Your task to perform on an android device: change notifications settings Image 0: 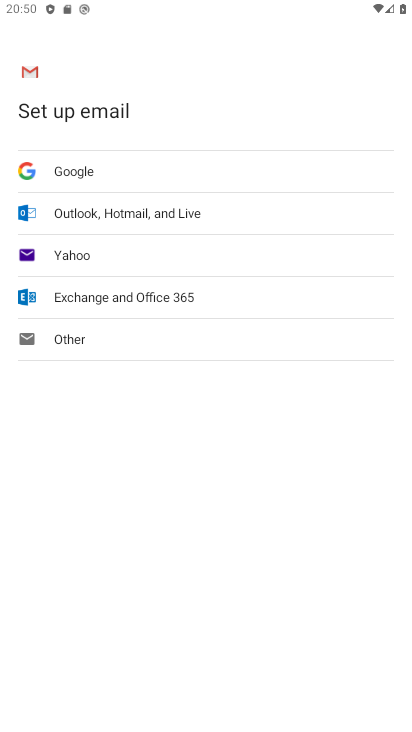
Step 0: press back button
Your task to perform on an android device: change notifications settings Image 1: 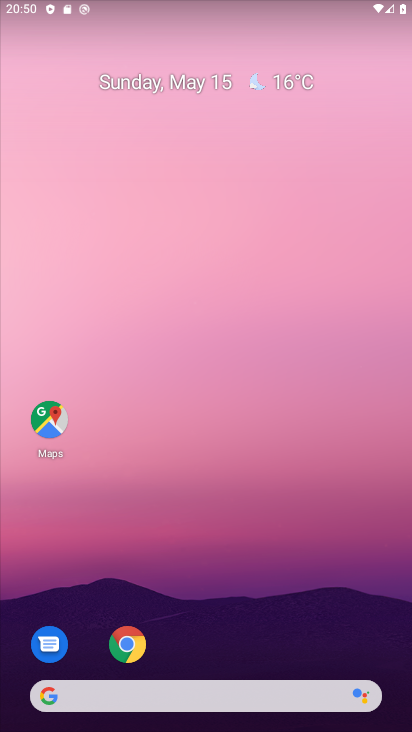
Step 1: drag from (207, 622) to (305, 63)
Your task to perform on an android device: change notifications settings Image 2: 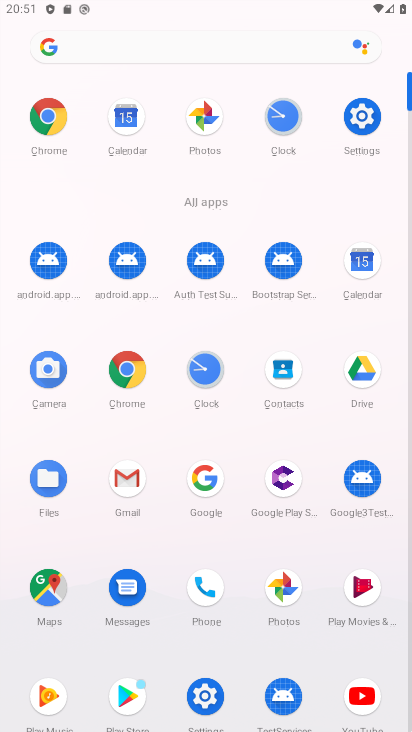
Step 2: click (355, 114)
Your task to perform on an android device: change notifications settings Image 3: 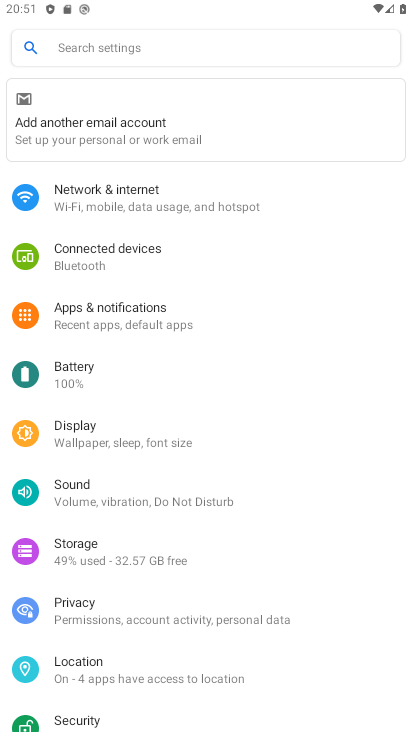
Step 3: click (127, 315)
Your task to perform on an android device: change notifications settings Image 4: 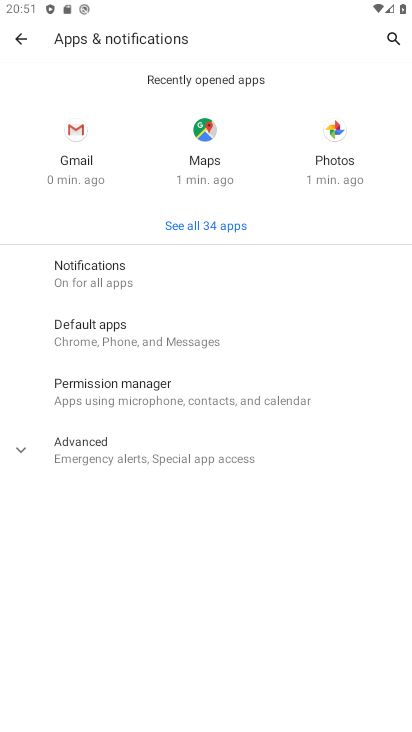
Step 4: click (197, 284)
Your task to perform on an android device: change notifications settings Image 5: 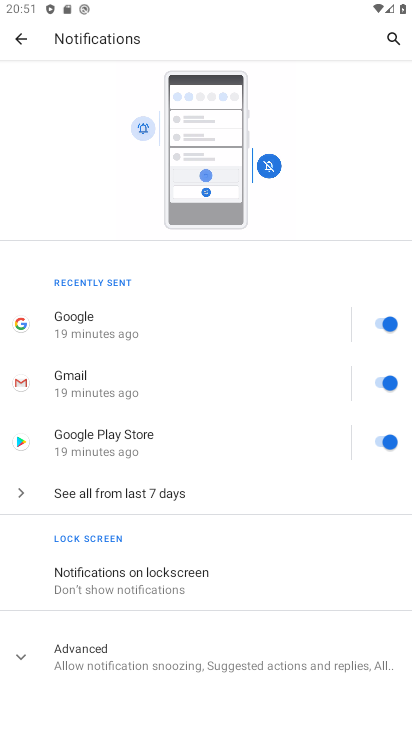
Step 5: drag from (232, 627) to (297, 370)
Your task to perform on an android device: change notifications settings Image 6: 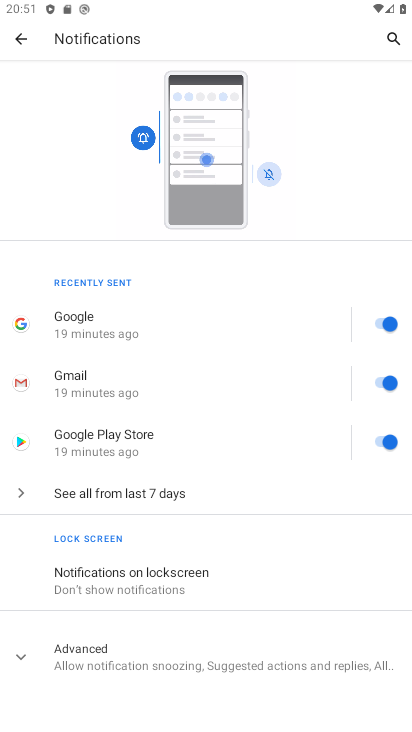
Step 6: click (153, 643)
Your task to perform on an android device: change notifications settings Image 7: 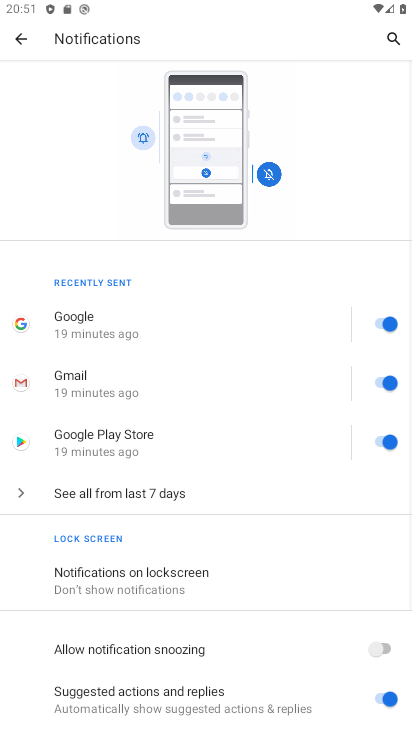
Step 7: drag from (224, 587) to (265, 305)
Your task to perform on an android device: change notifications settings Image 8: 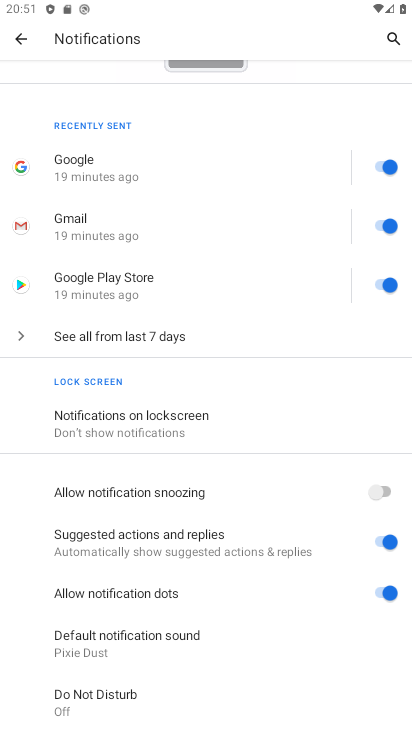
Step 8: click (389, 482)
Your task to perform on an android device: change notifications settings Image 9: 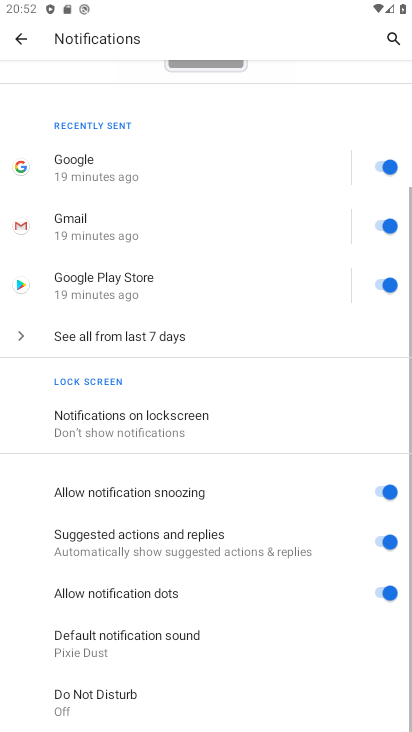
Step 9: task complete